Your task to perform on an android device: uninstall "Google Pay: Save, Pay, Manage" Image 0: 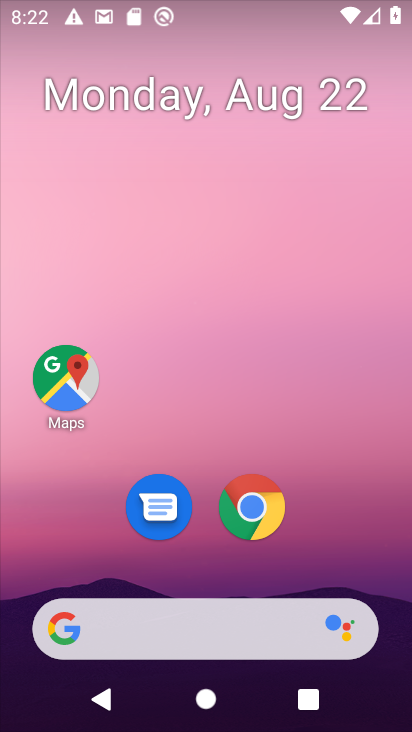
Step 0: drag from (193, 563) to (225, 218)
Your task to perform on an android device: uninstall "Google Pay: Save, Pay, Manage" Image 1: 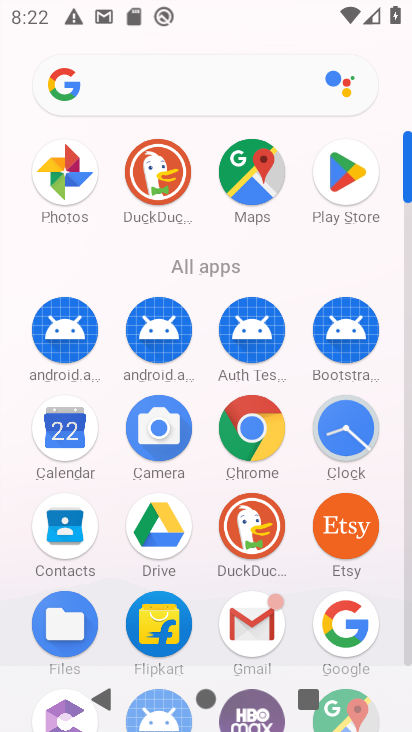
Step 1: click (338, 185)
Your task to perform on an android device: uninstall "Google Pay: Save, Pay, Manage" Image 2: 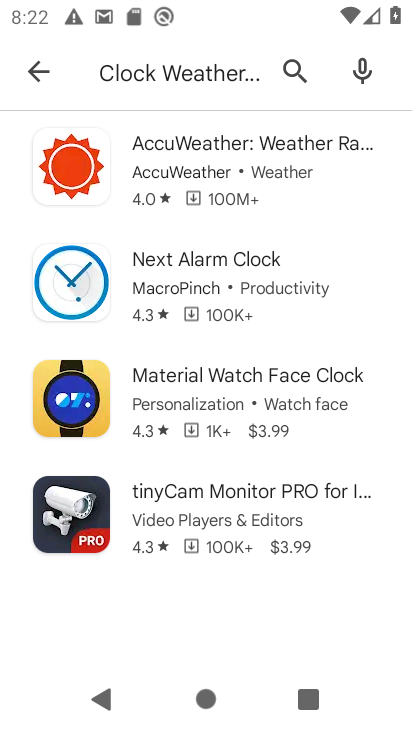
Step 2: click (212, 83)
Your task to perform on an android device: uninstall "Google Pay: Save, Pay, Manage" Image 3: 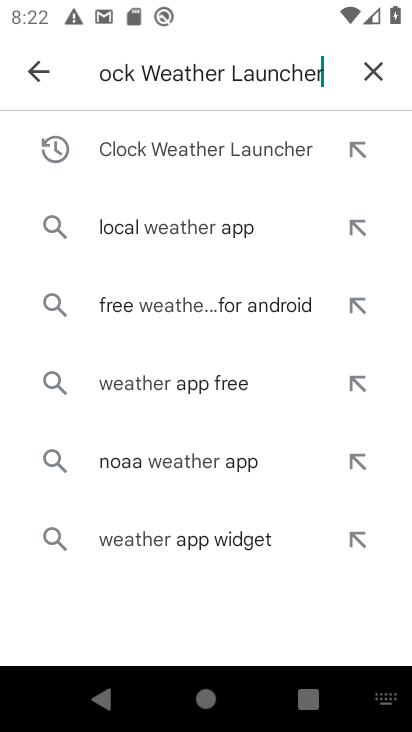
Step 3: click (374, 68)
Your task to perform on an android device: uninstall "Google Pay: Save, Pay, Manage" Image 4: 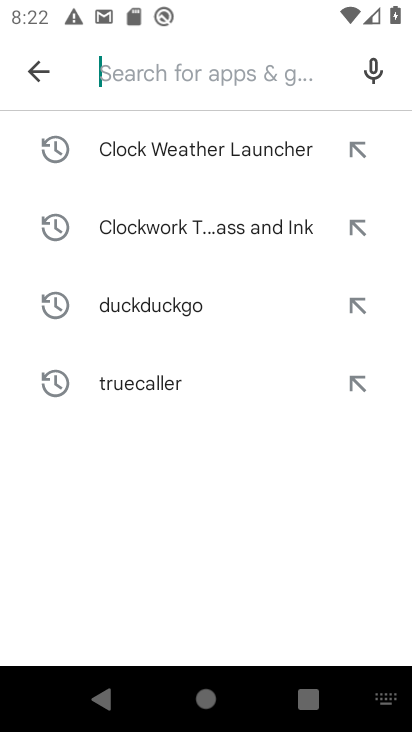
Step 4: type "google pay"
Your task to perform on an android device: uninstall "Google Pay: Save, Pay, Manage" Image 5: 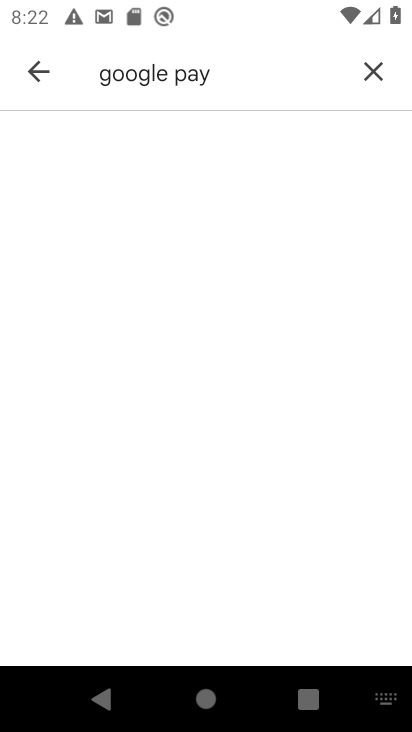
Step 5: click (180, 136)
Your task to perform on an android device: uninstall "Google Pay: Save, Pay, Manage" Image 6: 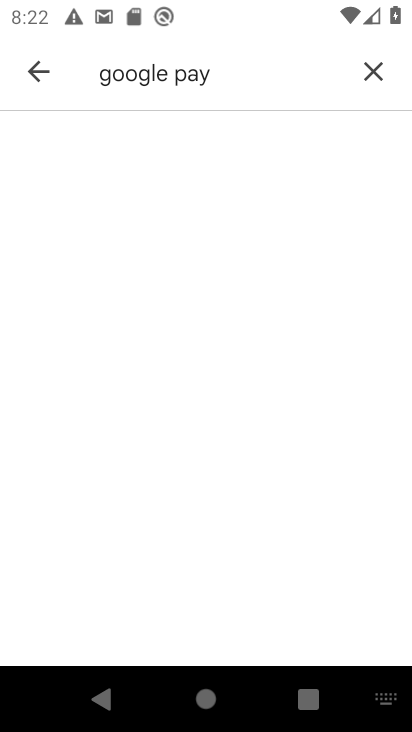
Step 6: drag from (180, 136) to (190, 246)
Your task to perform on an android device: uninstall "Google Pay: Save, Pay, Manage" Image 7: 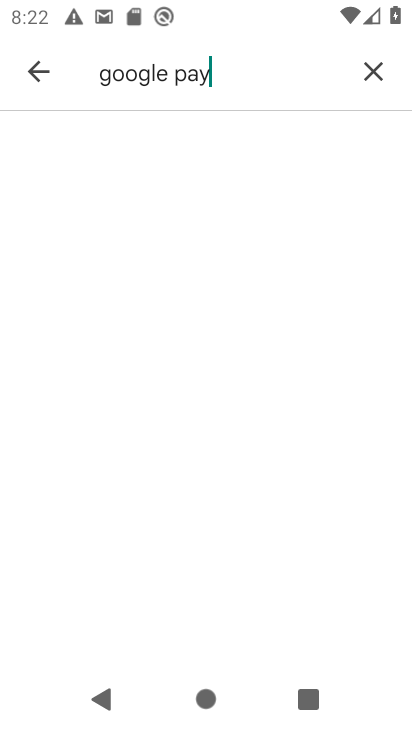
Step 7: click (202, 167)
Your task to perform on an android device: uninstall "Google Pay: Save, Pay, Manage" Image 8: 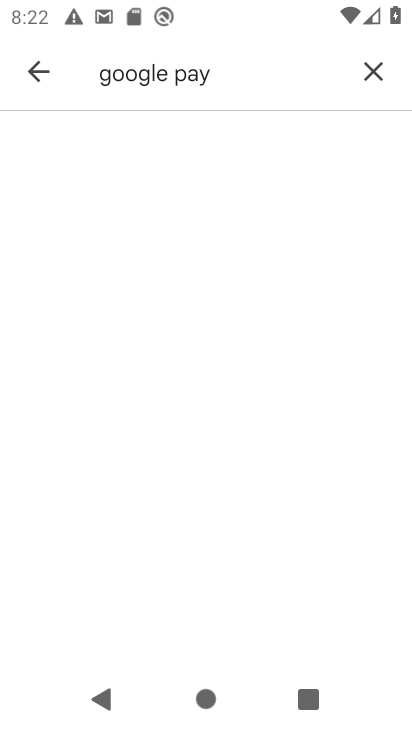
Step 8: task complete